Your task to perform on an android device: What's on the menu at Starbucks? Image 0: 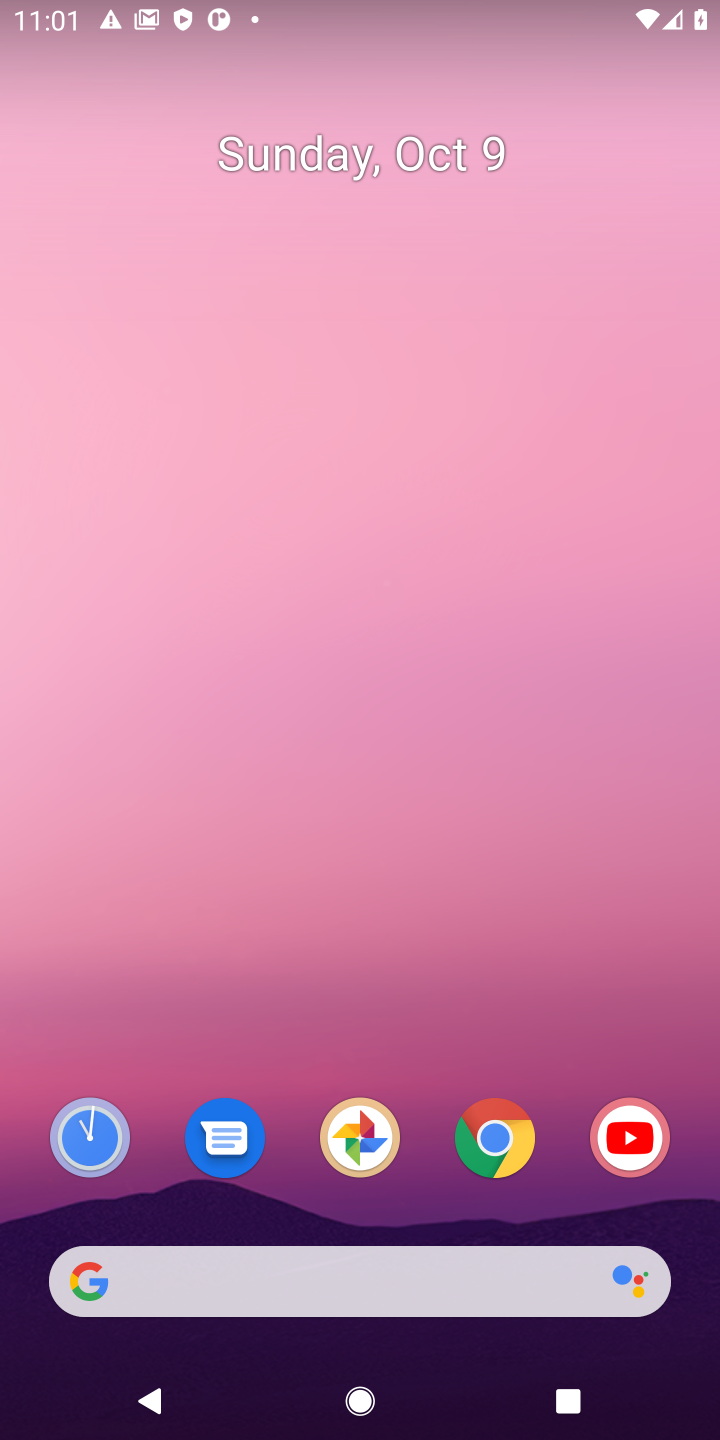
Step 0: click (504, 1136)
Your task to perform on an android device: What's on the menu at Starbucks? Image 1: 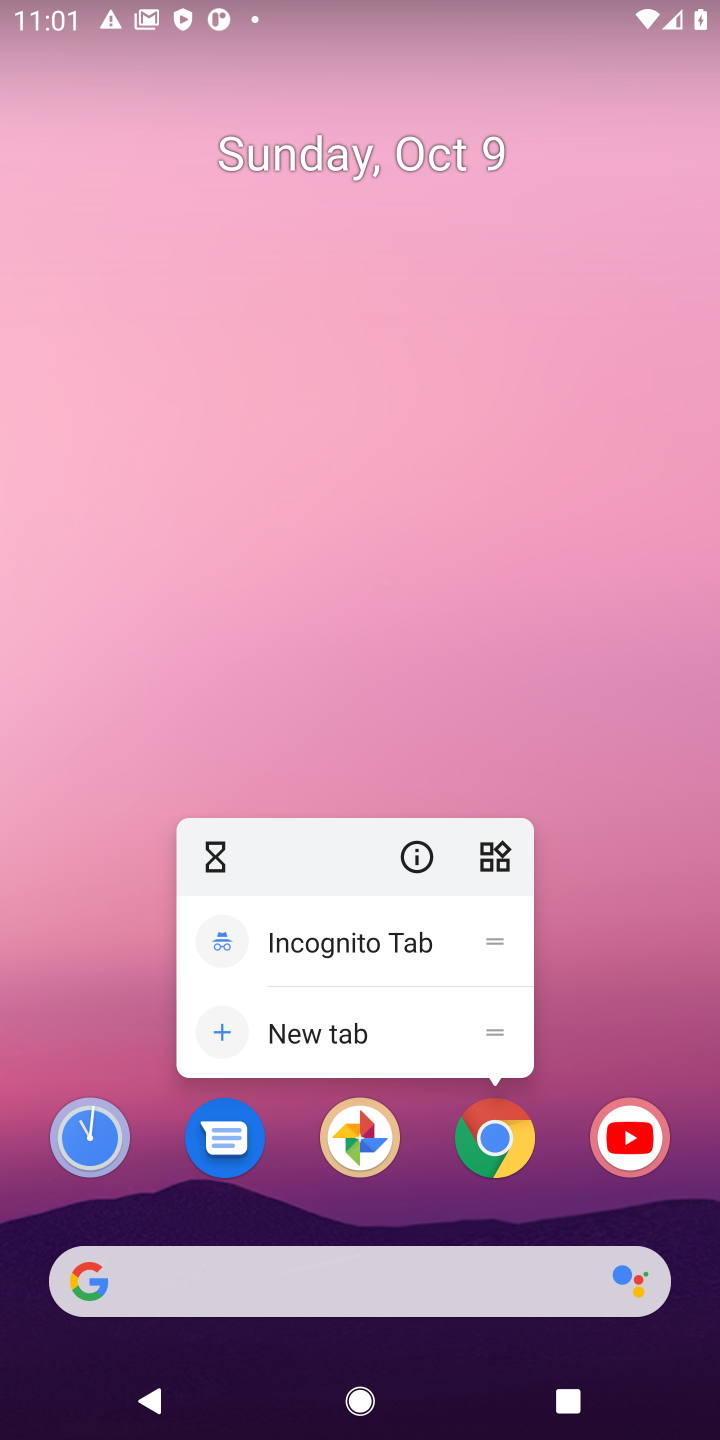
Step 1: click (504, 1136)
Your task to perform on an android device: What's on the menu at Starbucks? Image 2: 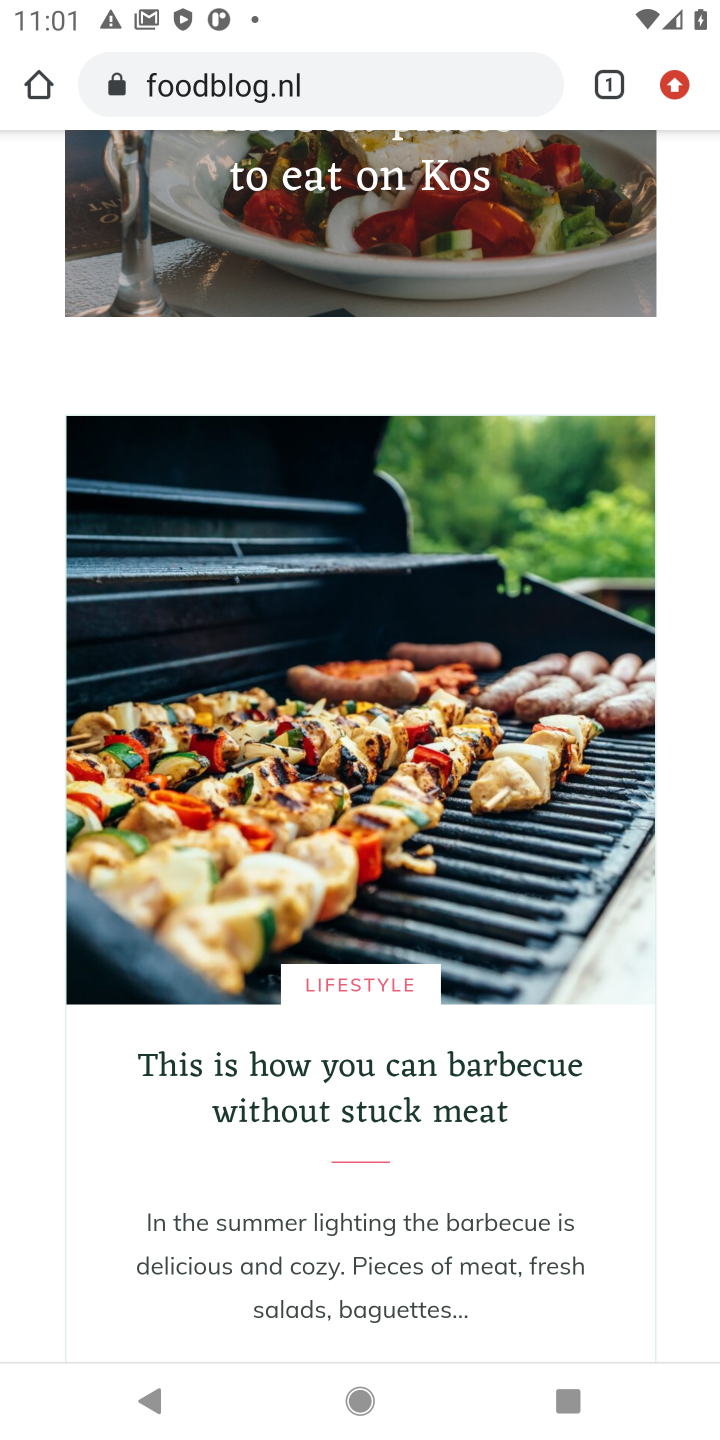
Step 2: click (298, 67)
Your task to perform on an android device: What's on the menu at Starbucks? Image 3: 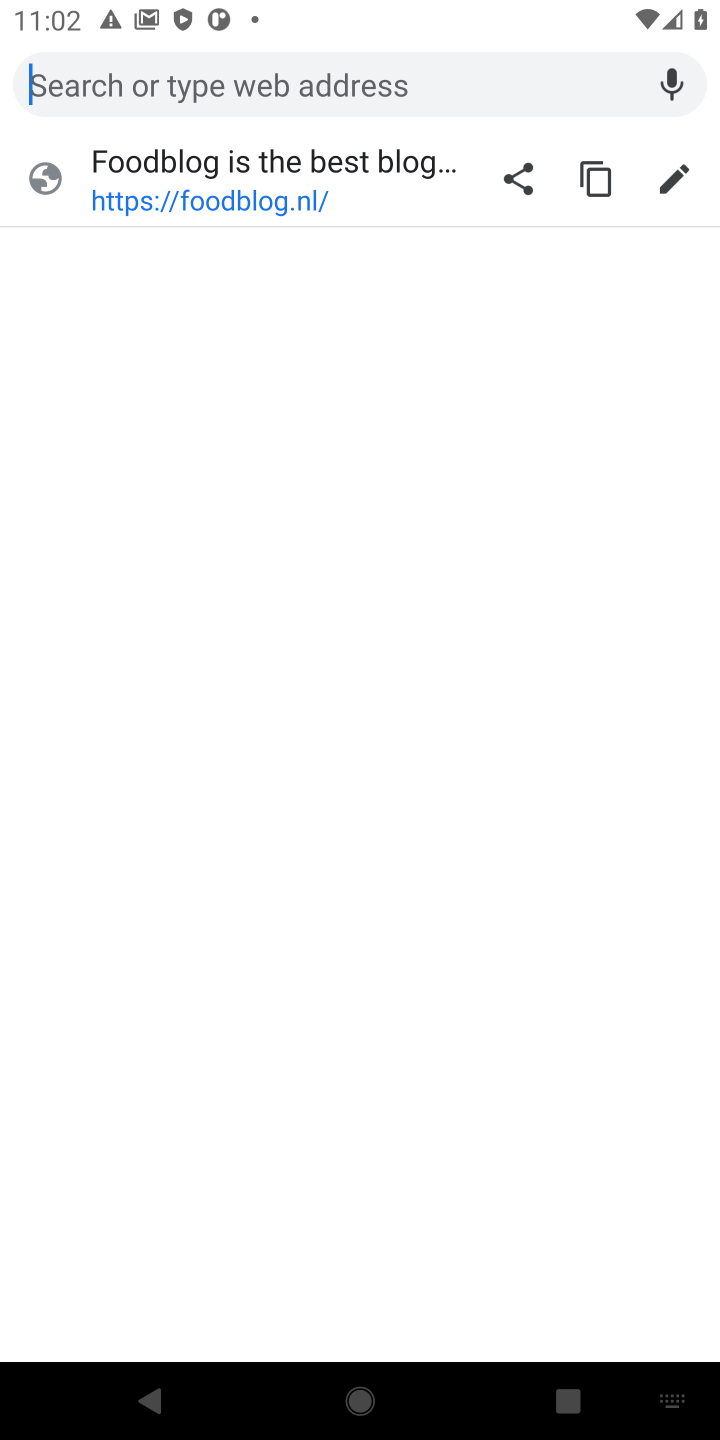
Step 3: type "menu at starbucks"
Your task to perform on an android device: What's on the menu at Starbucks? Image 4: 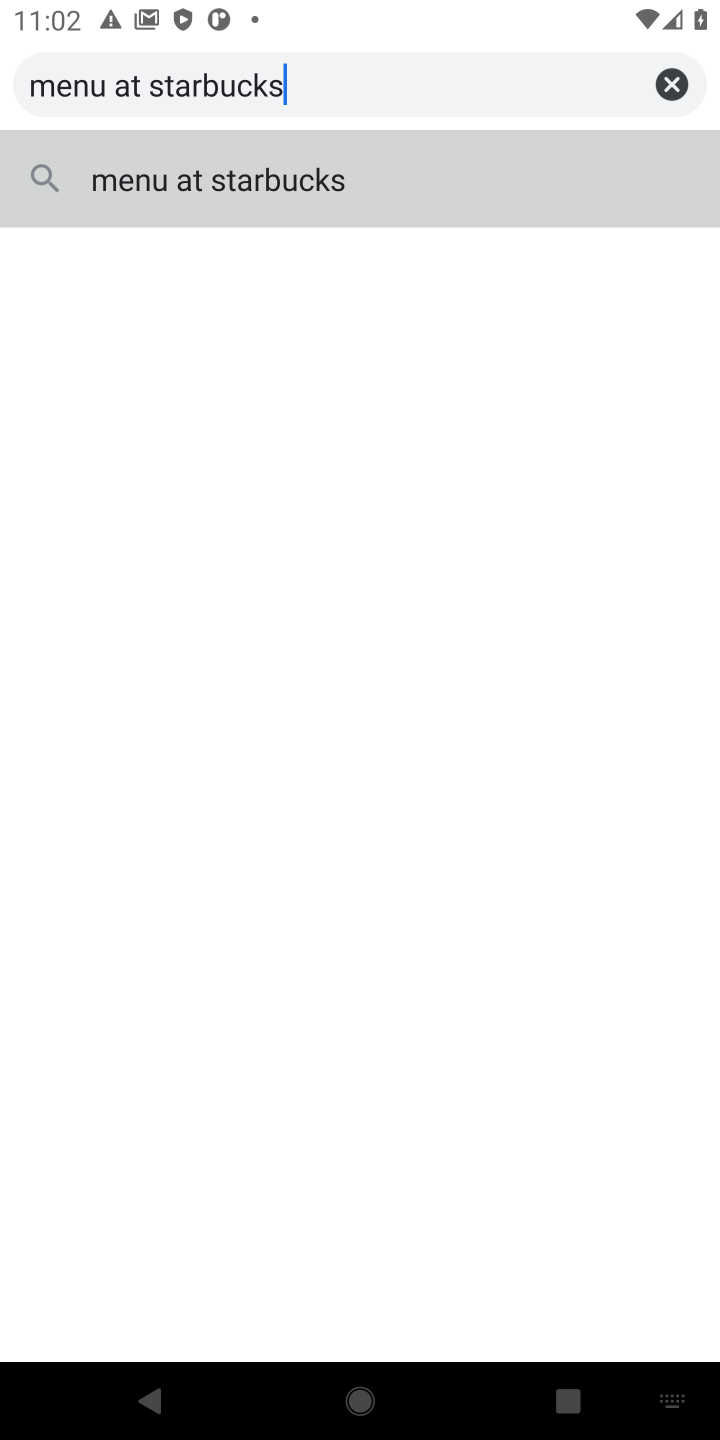
Step 4: press enter
Your task to perform on an android device: What's on the menu at Starbucks? Image 5: 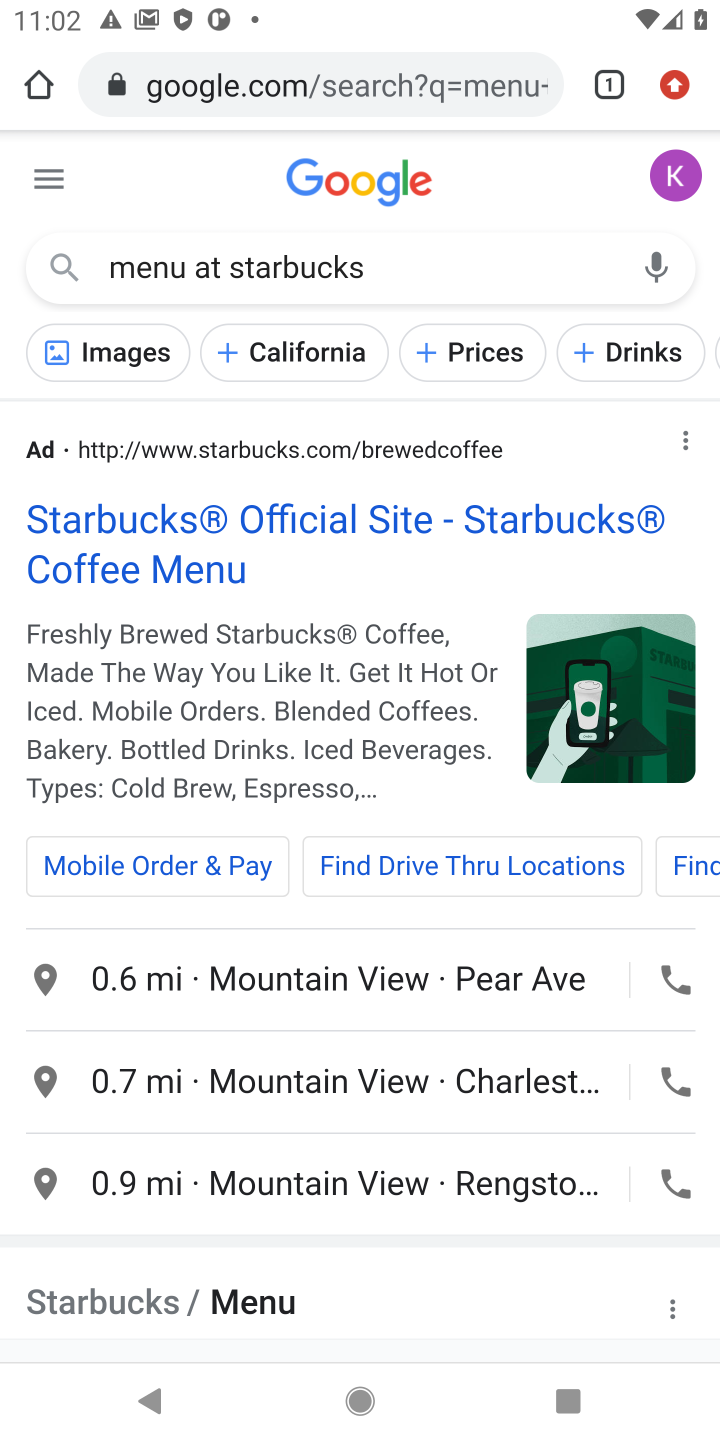
Step 5: click (249, 542)
Your task to perform on an android device: What's on the menu at Starbucks? Image 6: 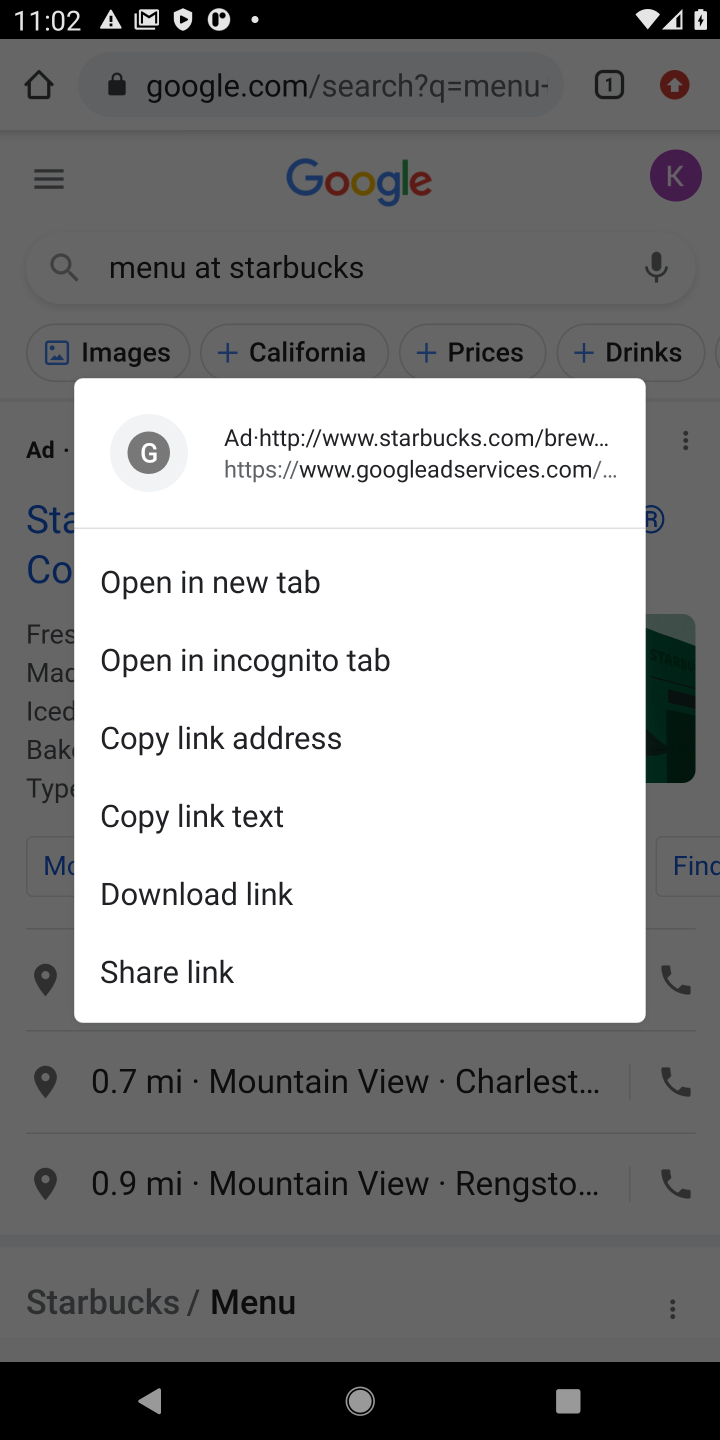
Step 6: press back button
Your task to perform on an android device: What's on the menu at Starbucks? Image 7: 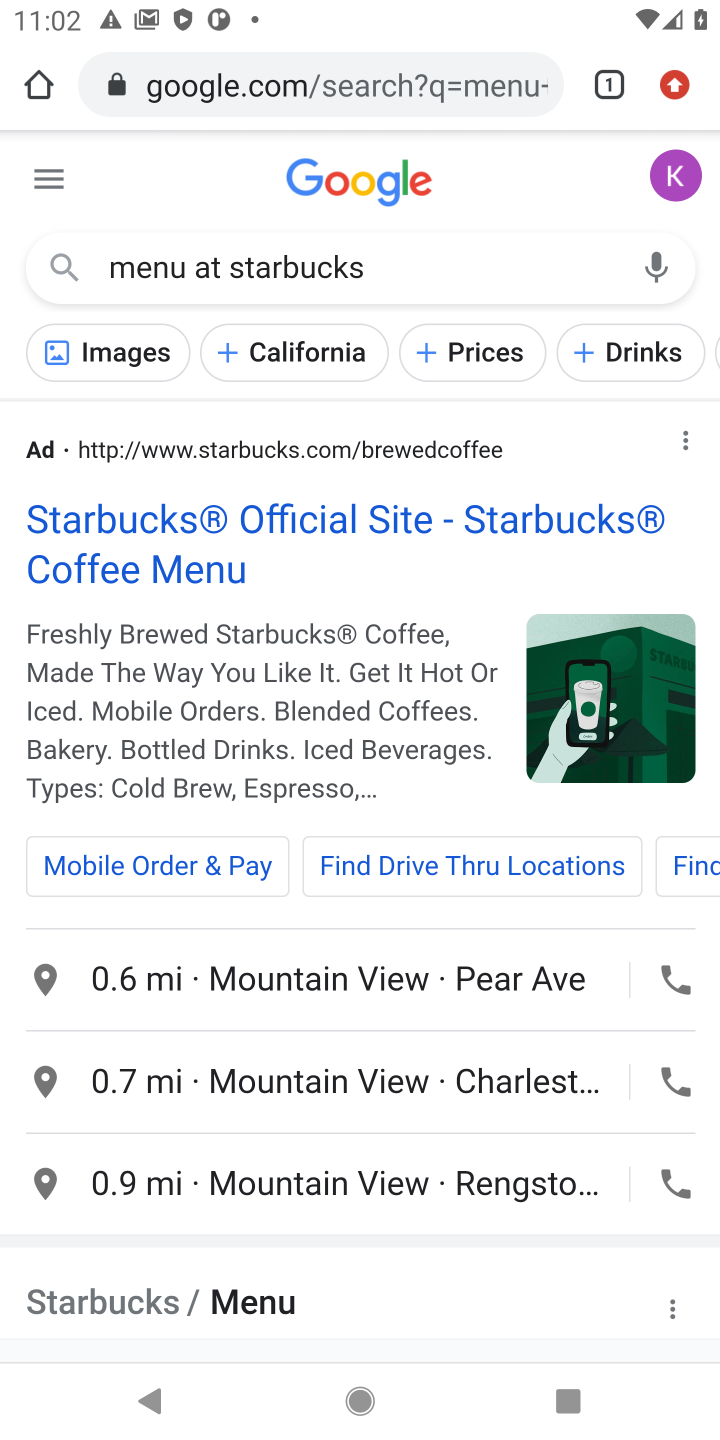
Step 7: click (299, 561)
Your task to perform on an android device: What's on the menu at Starbucks? Image 8: 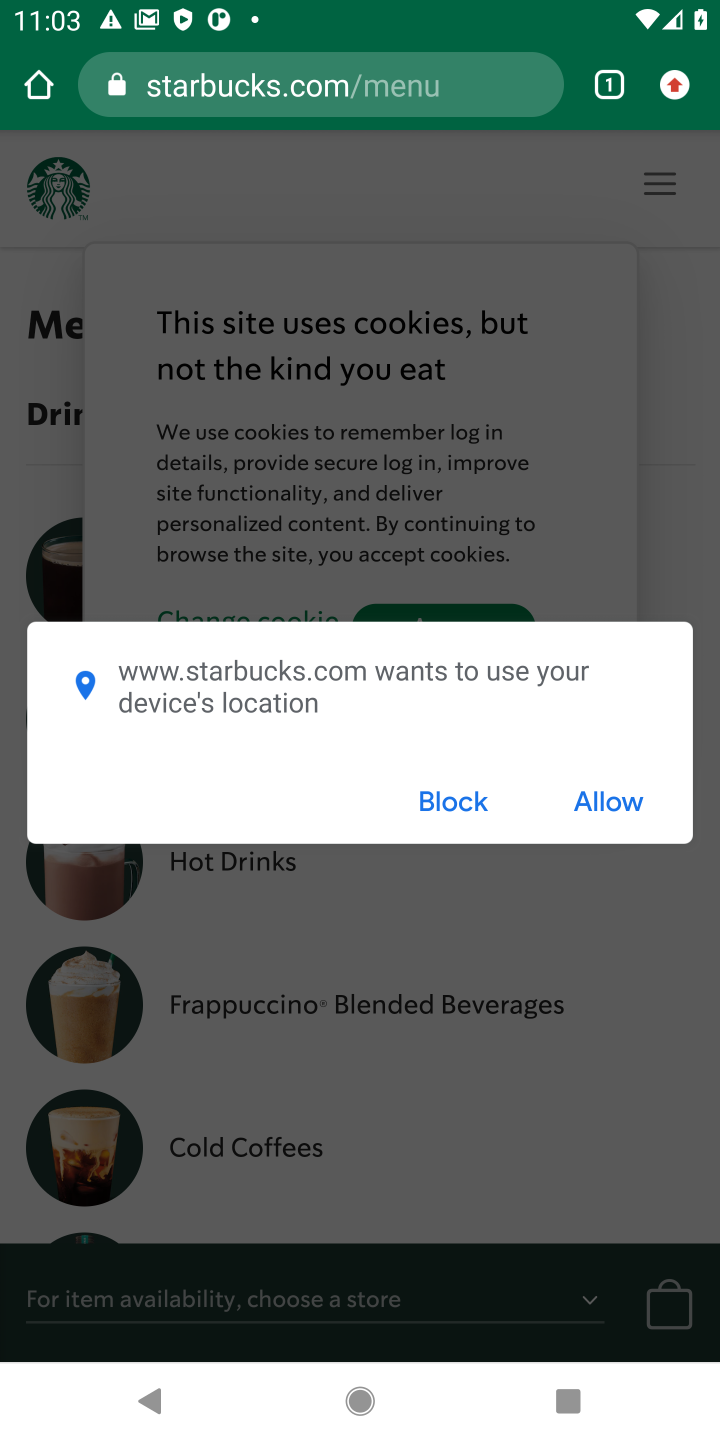
Step 8: click (584, 806)
Your task to perform on an android device: What's on the menu at Starbucks? Image 9: 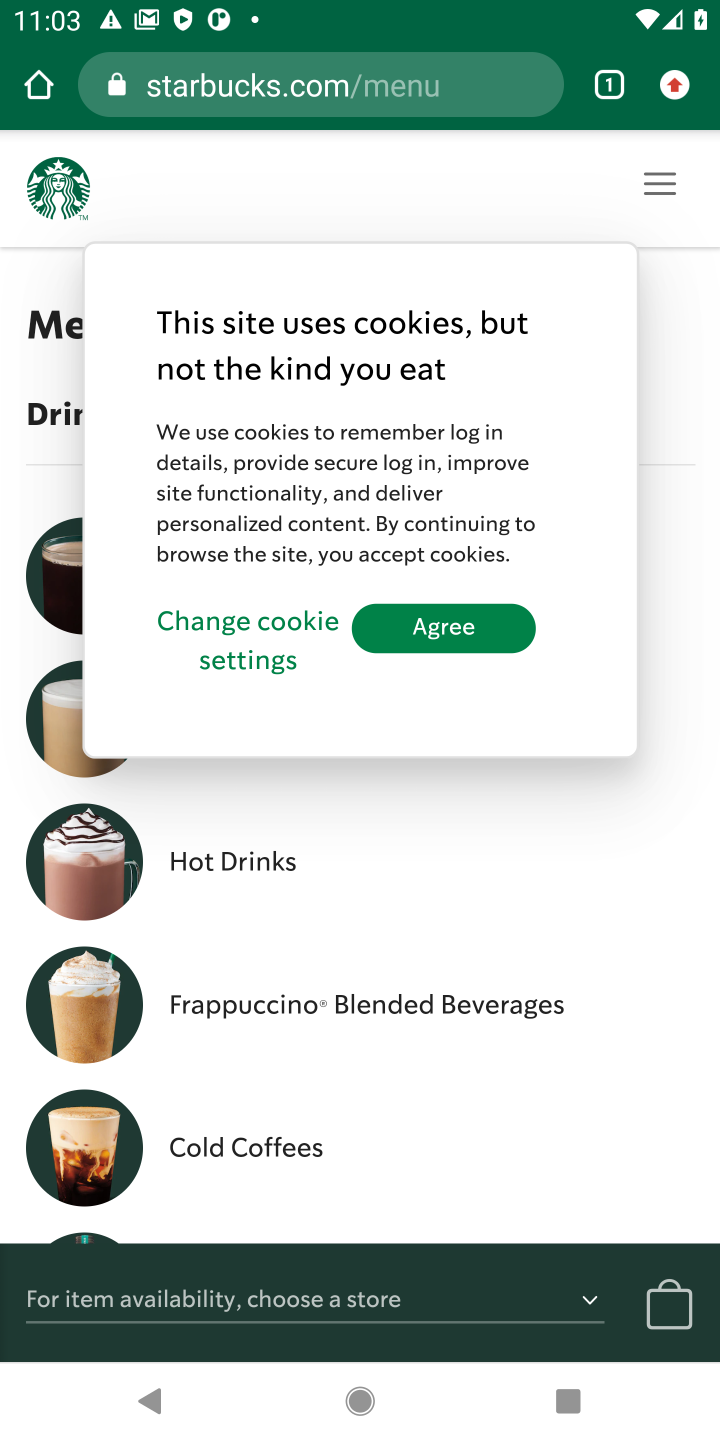
Step 9: click (414, 638)
Your task to perform on an android device: What's on the menu at Starbucks? Image 10: 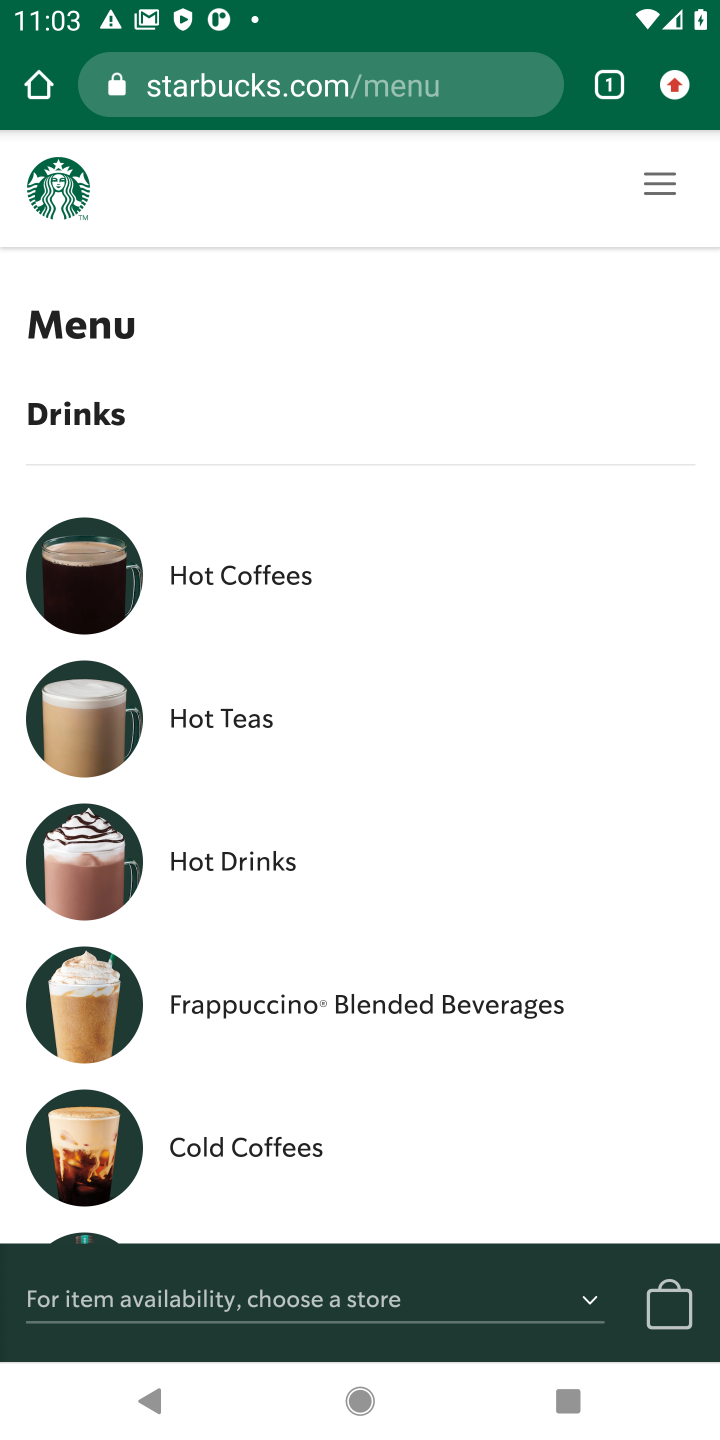
Step 10: task complete